Your task to perform on an android device: Open Chrome and go to the settings page Image 0: 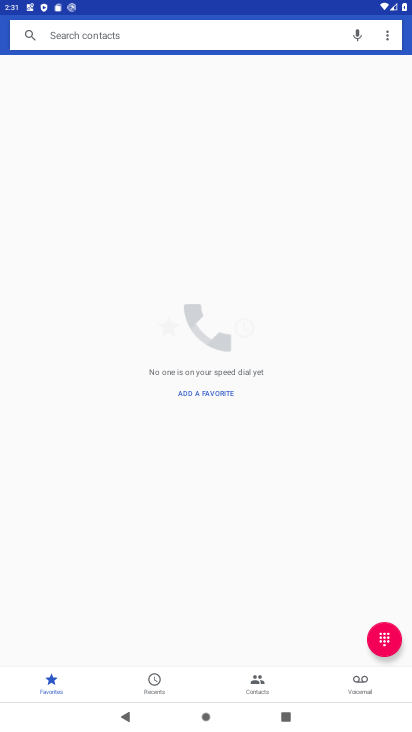
Step 0: press home button
Your task to perform on an android device: Open Chrome and go to the settings page Image 1: 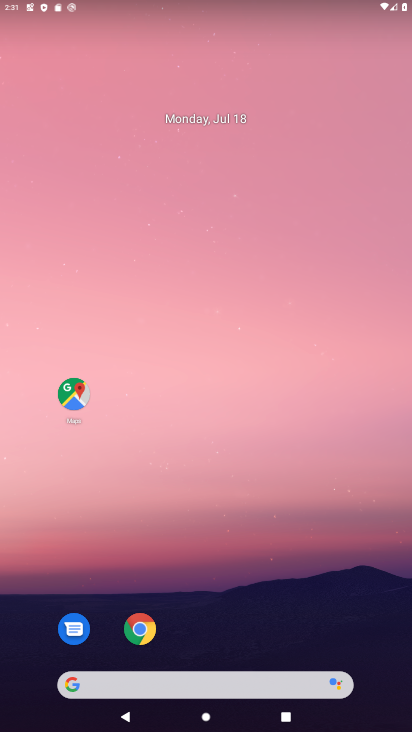
Step 1: click (135, 638)
Your task to perform on an android device: Open Chrome and go to the settings page Image 2: 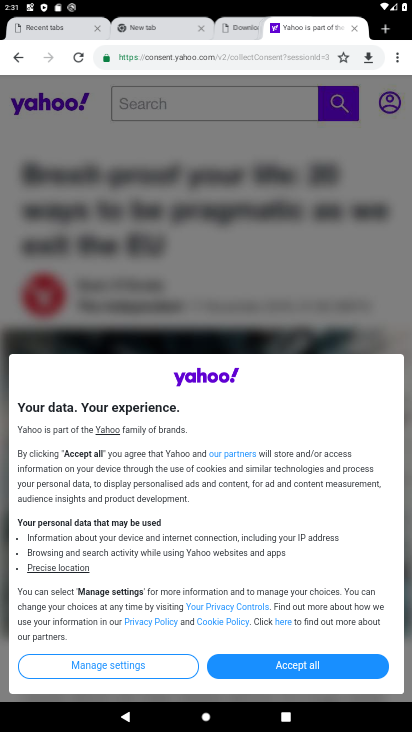
Step 2: click (395, 64)
Your task to perform on an android device: Open Chrome and go to the settings page Image 3: 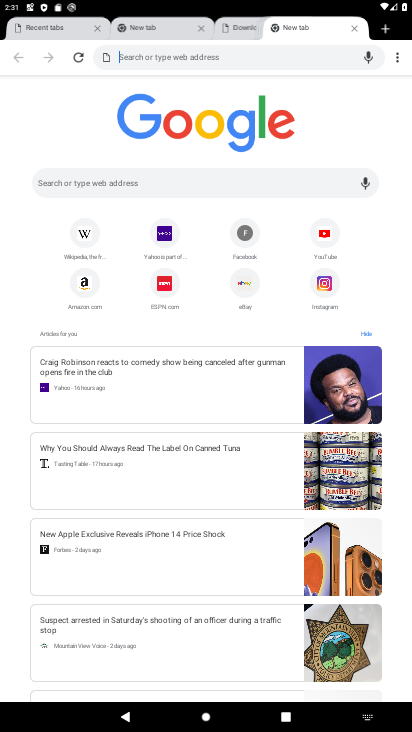
Step 3: click (391, 65)
Your task to perform on an android device: Open Chrome and go to the settings page Image 4: 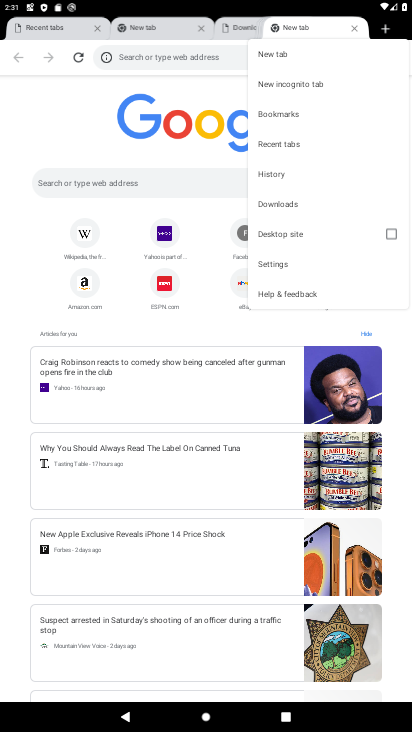
Step 4: click (307, 258)
Your task to perform on an android device: Open Chrome and go to the settings page Image 5: 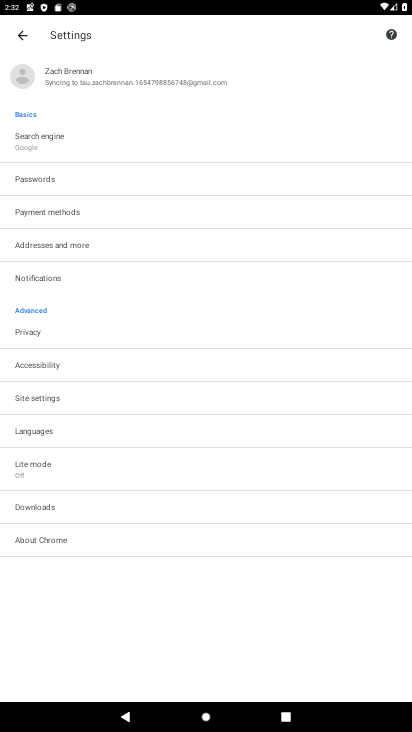
Step 5: task complete